Your task to perform on an android device: Search for seafood restaurants on Google Maps Image 0: 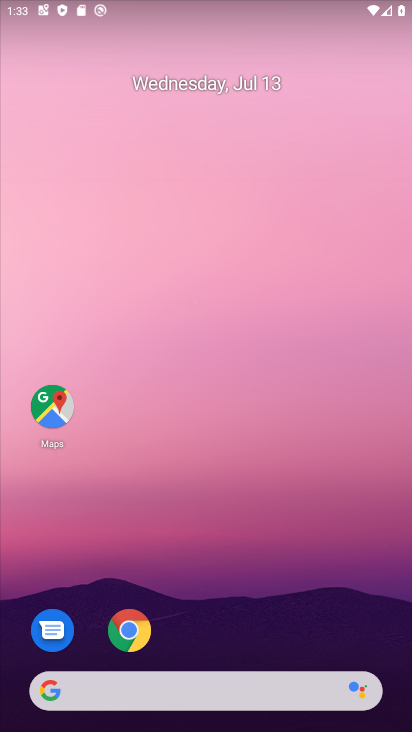
Step 0: drag from (303, 658) to (331, 213)
Your task to perform on an android device: Search for seafood restaurants on Google Maps Image 1: 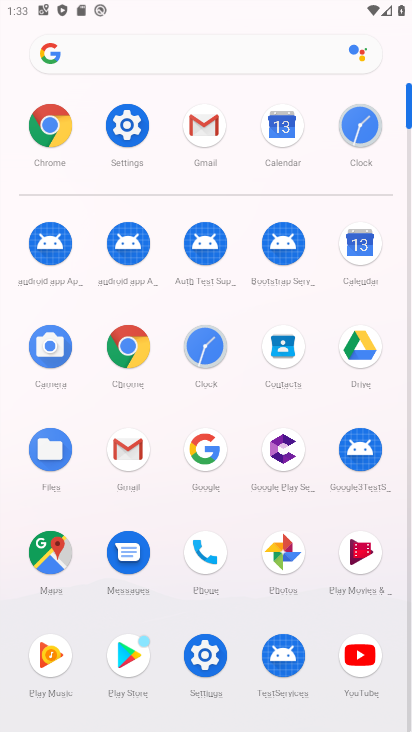
Step 1: click (54, 549)
Your task to perform on an android device: Search for seafood restaurants on Google Maps Image 2: 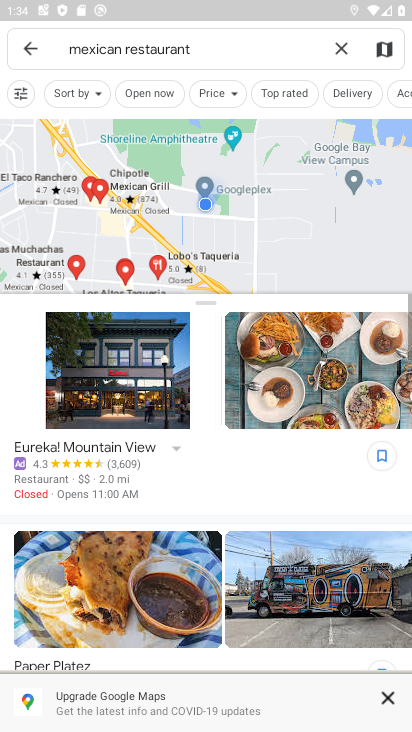
Step 2: press back button
Your task to perform on an android device: Search for seafood restaurants on Google Maps Image 3: 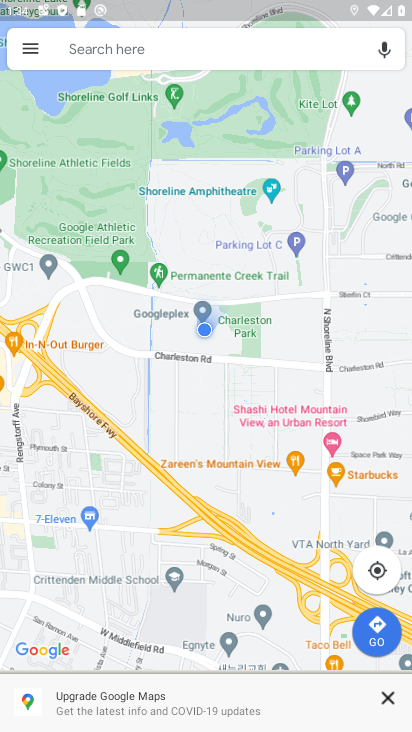
Step 3: click (221, 44)
Your task to perform on an android device: Search for seafood restaurants on Google Maps Image 4: 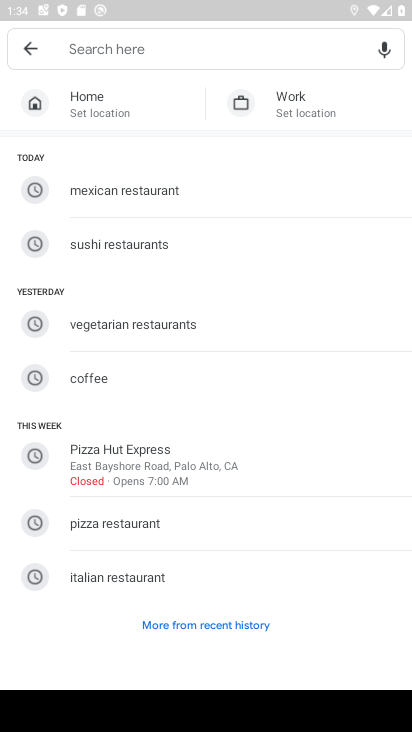
Step 4: type "seafood restaurants"
Your task to perform on an android device: Search for seafood restaurants on Google Maps Image 5: 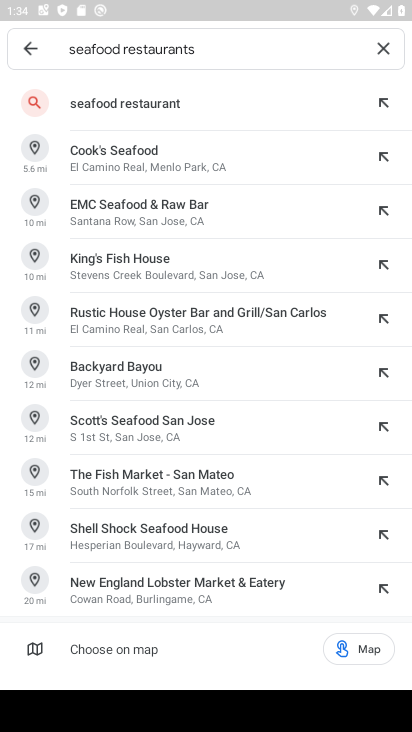
Step 5: click (181, 96)
Your task to perform on an android device: Search for seafood restaurants on Google Maps Image 6: 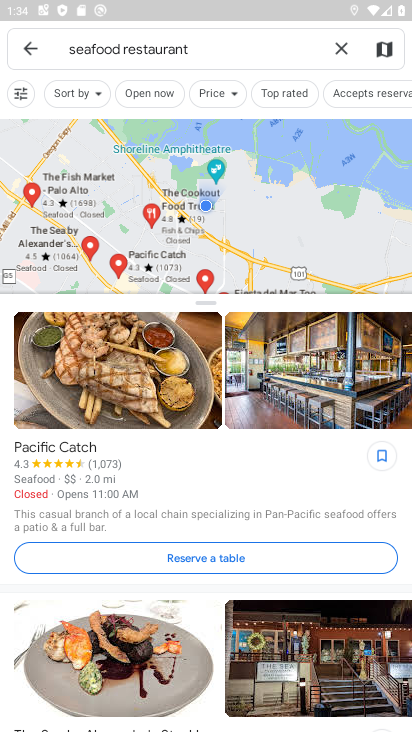
Step 6: task complete